Your task to perform on an android device: Open the phone app and click the voicemail tab. Image 0: 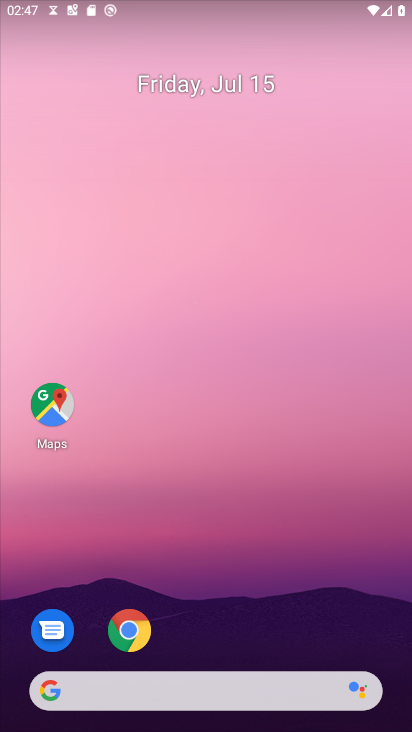
Step 0: drag from (283, 590) to (310, 40)
Your task to perform on an android device: Open the phone app and click the voicemail tab. Image 1: 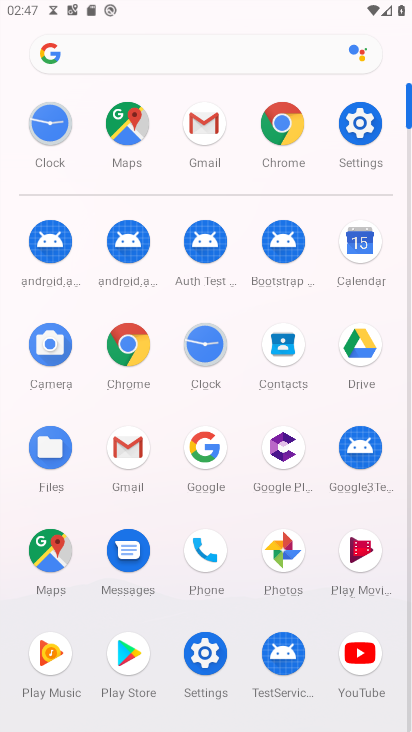
Step 1: click (205, 558)
Your task to perform on an android device: Open the phone app and click the voicemail tab. Image 2: 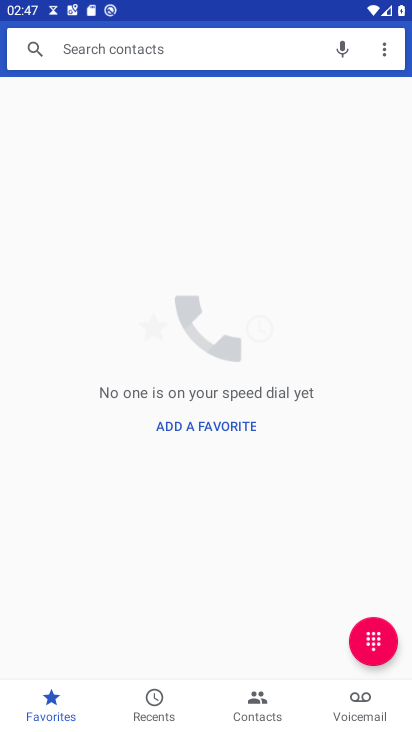
Step 2: click (355, 714)
Your task to perform on an android device: Open the phone app and click the voicemail tab. Image 3: 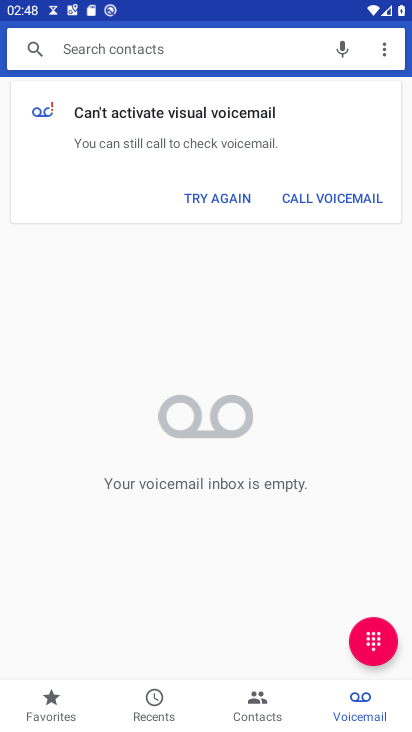
Step 3: task complete